Your task to perform on an android device: choose inbox layout in the gmail app Image 0: 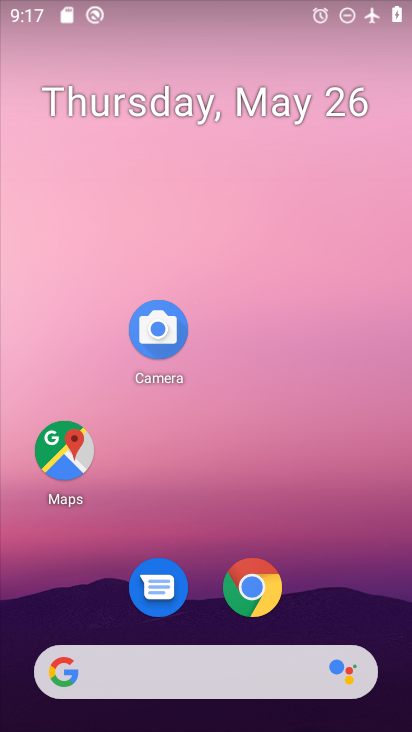
Step 0: drag from (186, 634) to (171, 240)
Your task to perform on an android device: choose inbox layout in the gmail app Image 1: 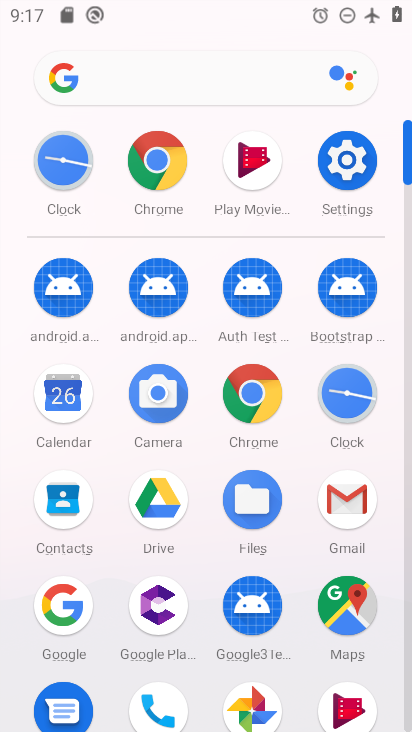
Step 1: click (349, 497)
Your task to perform on an android device: choose inbox layout in the gmail app Image 2: 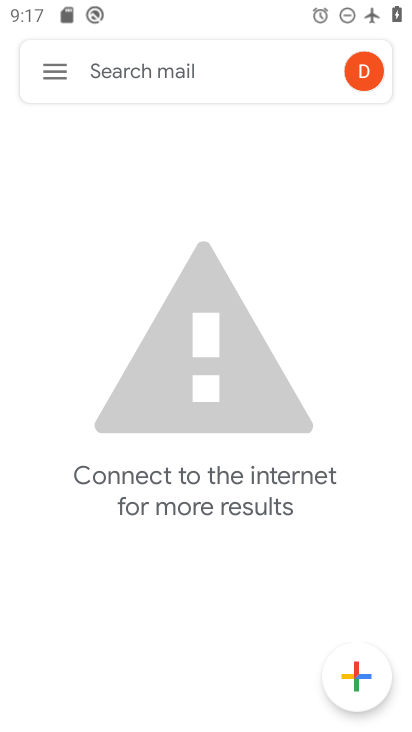
Step 2: click (46, 75)
Your task to perform on an android device: choose inbox layout in the gmail app Image 3: 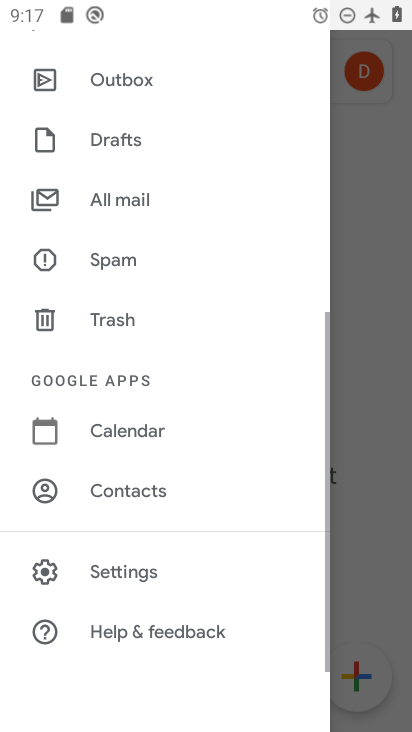
Step 3: click (128, 555)
Your task to perform on an android device: choose inbox layout in the gmail app Image 4: 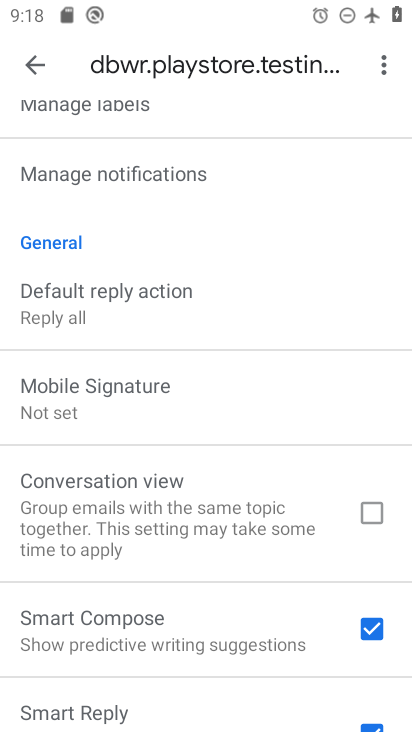
Step 4: drag from (202, 193) to (213, 458)
Your task to perform on an android device: choose inbox layout in the gmail app Image 5: 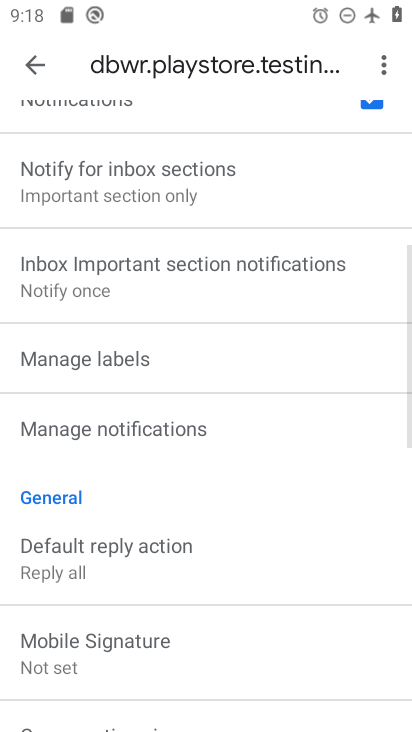
Step 5: drag from (167, 231) to (194, 556)
Your task to perform on an android device: choose inbox layout in the gmail app Image 6: 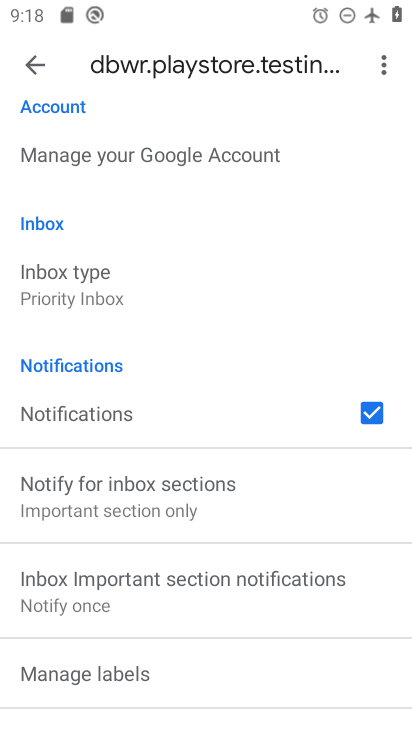
Step 6: drag from (168, 205) to (202, 464)
Your task to perform on an android device: choose inbox layout in the gmail app Image 7: 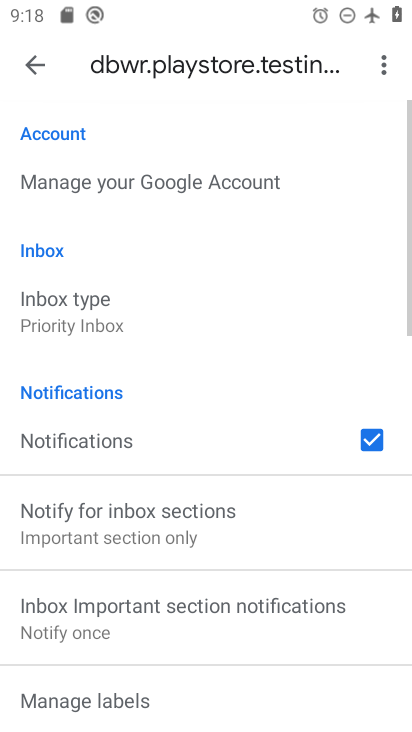
Step 7: click (129, 316)
Your task to perform on an android device: choose inbox layout in the gmail app Image 8: 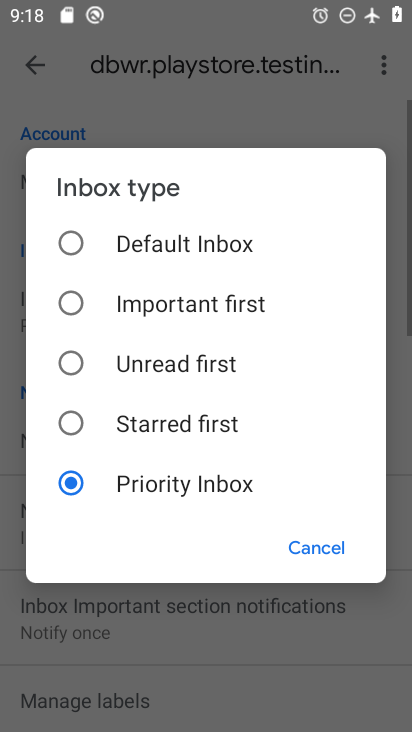
Step 8: click (129, 247)
Your task to perform on an android device: choose inbox layout in the gmail app Image 9: 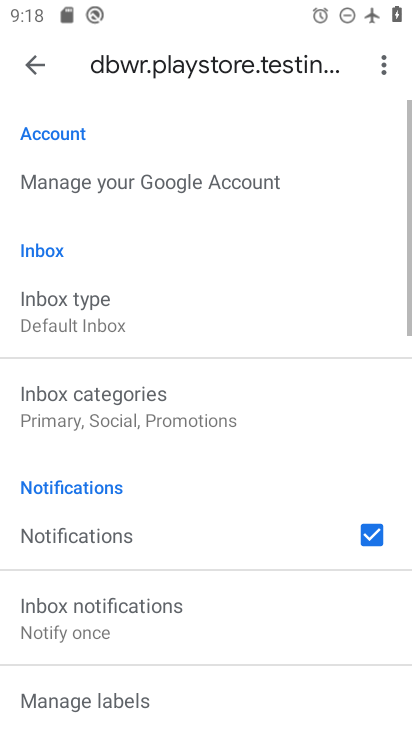
Step 9: task complete